Your task to perform on an android device: open a new tab in the chrome app Image 0: 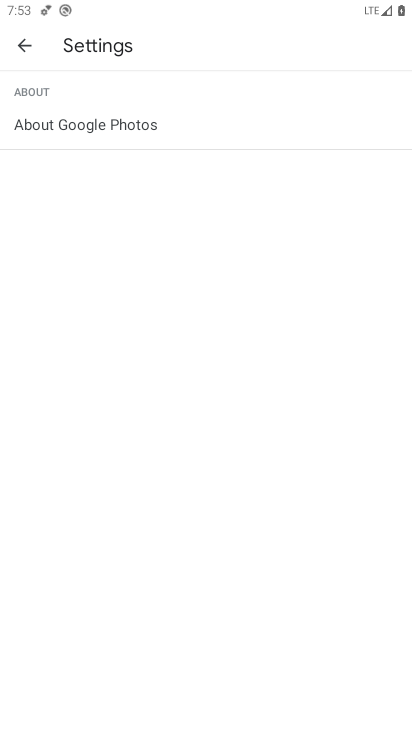
Step 0: press home button
Your task to perform on an android device: open a new tab in the chrome app Image 1: 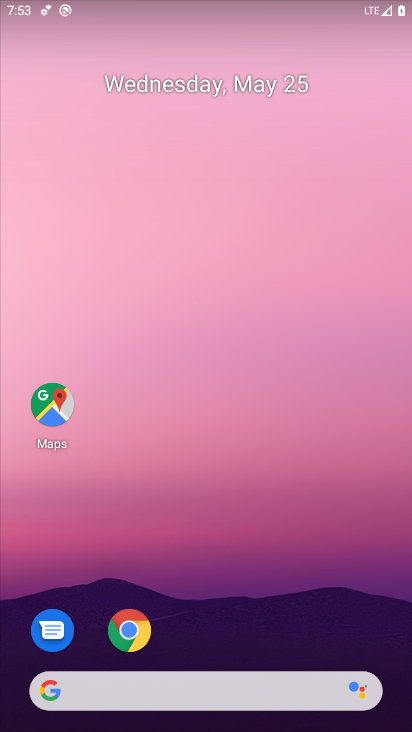
Step 1: drag from (193, 667) to (240, 316)
Your task to perform on an android device: open a new tab in the chrome app Image 2: 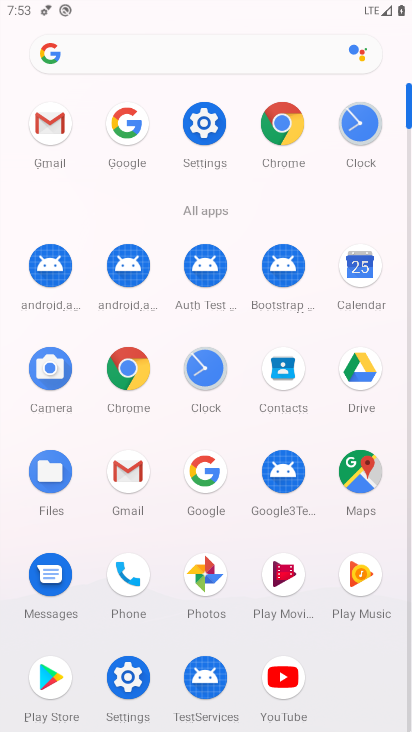
Step 2: click (293, 126)
Your task to perform on an android device: open a new tab in the chrome app Image 3: 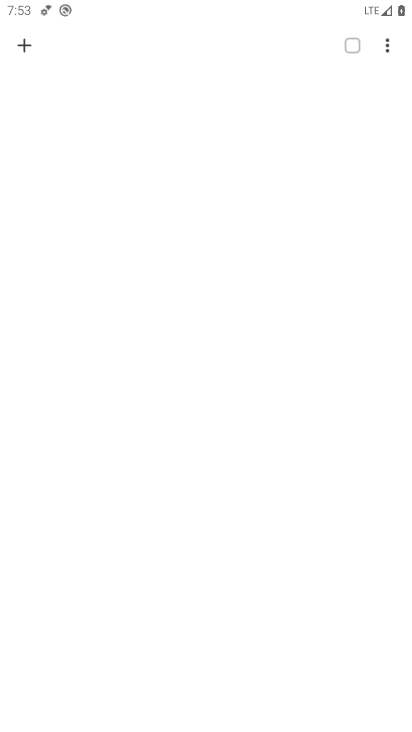
Step 3: click (28, 40)
Your task to perform on an android device: open a new tab in the chrome app Image 4: 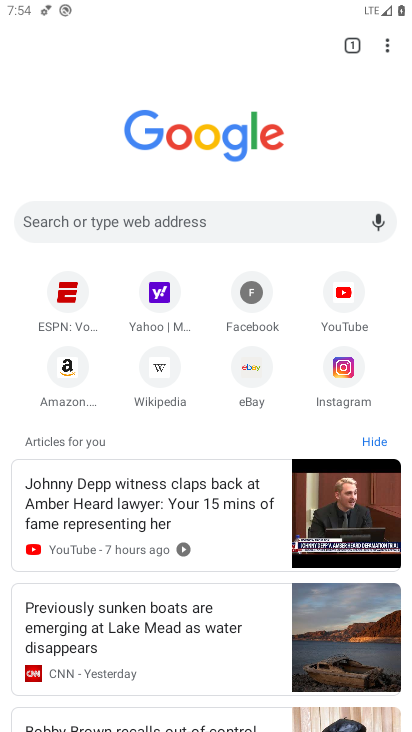
Step 4: click (392, 45)
Your task to perform on an android device: open a new tab in the chrome app Image 5: 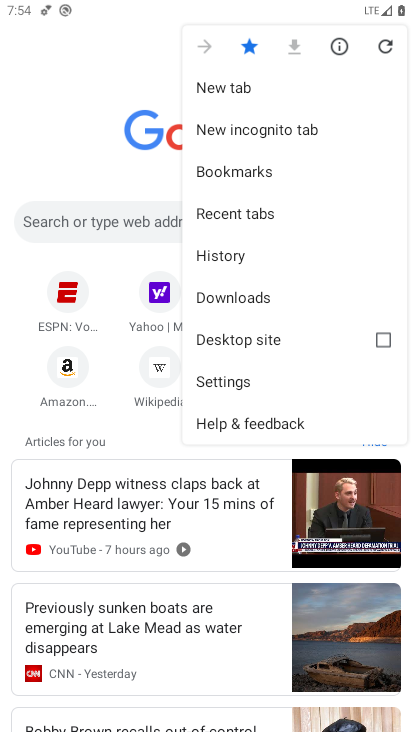
Step 5: click (210, 82)
Your task to perform on an android device: open a new tab in the chrome app Image 6: 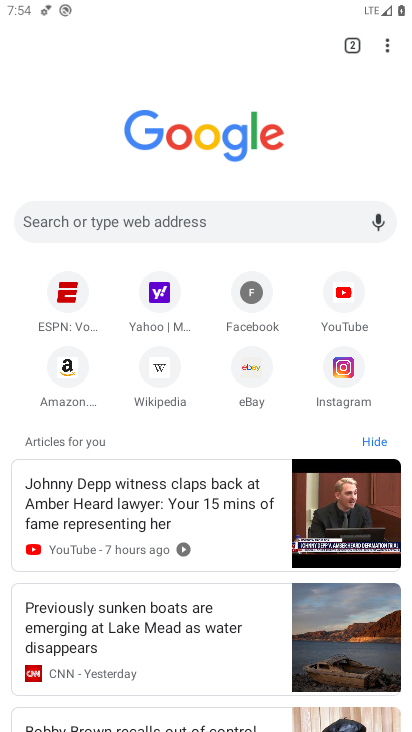
Step 6: task complete